Your task to perform on an android device: create a new album in the google photos Image 0: 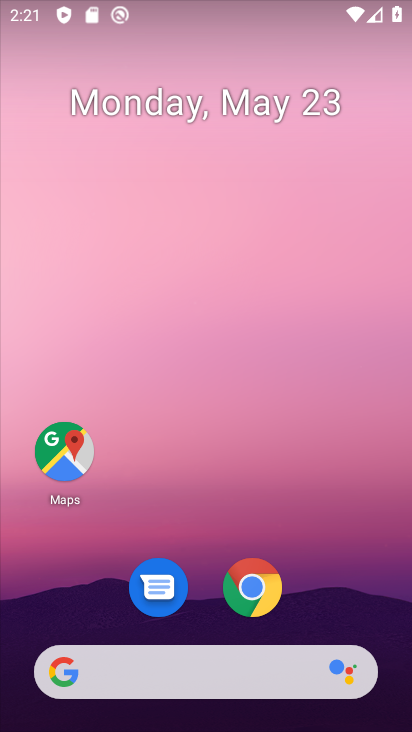
Step 0: drag from (193, 513) to (229, 287)
Your task to perform on an android device: create a new album in the google photos Image 1: 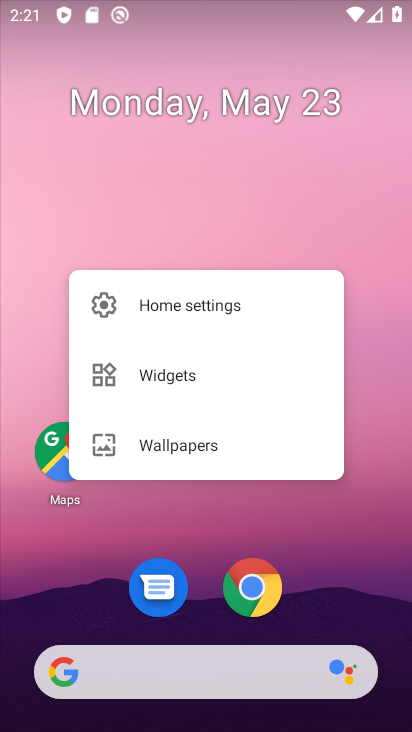
Step 1: drag from (206, 366) to (234, 209)
Your task to perform on an android device: create a new album in the google photos Image 2: 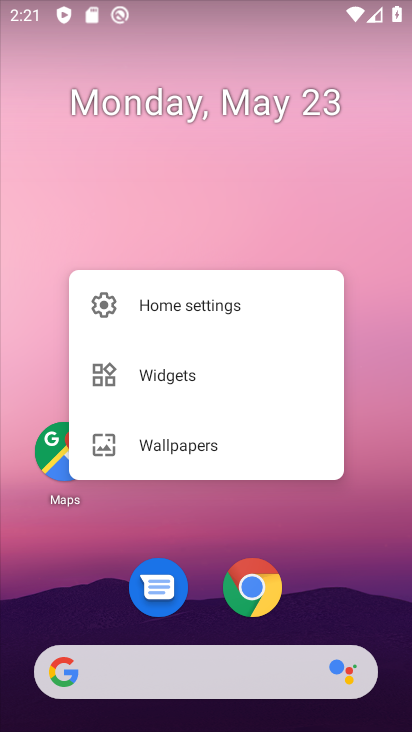
Step 2: click (214, 610)
Your task to perform on an android device: create a new album in the google photos Image 3: 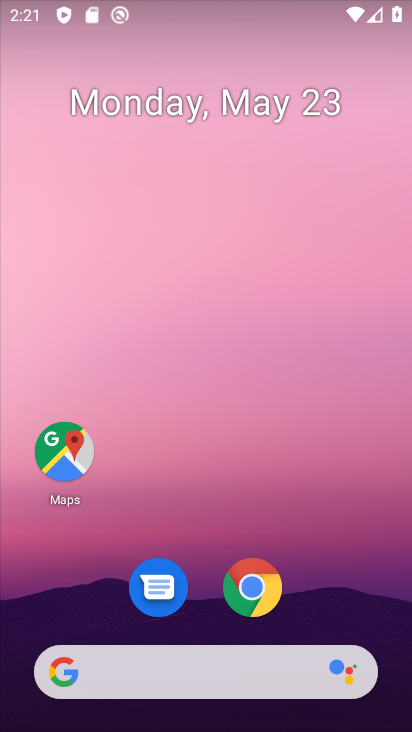
Step 3: drag from (187, 601) to (227, 145)
Your task to perform on an android device: create a new album in the google photos Image 4: 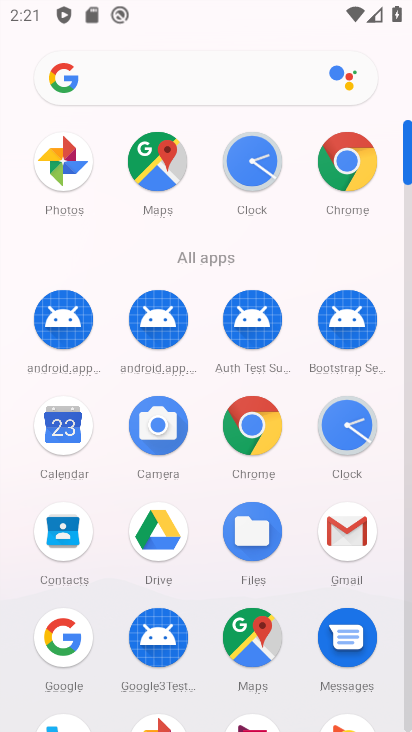
Step 4: drag from (119, 606) to (240, 131)
Your task to perform on an android device: create a new album in the google photos Image 5: 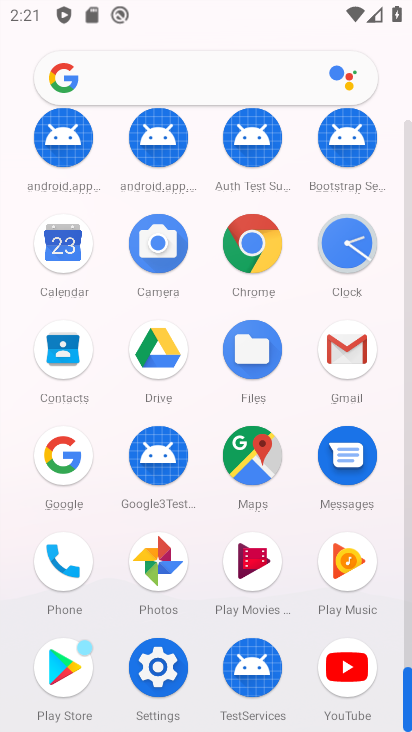
Step 5: click (155, 554)
Your task to perform on an android device: create a new album in the google photos Image 6: 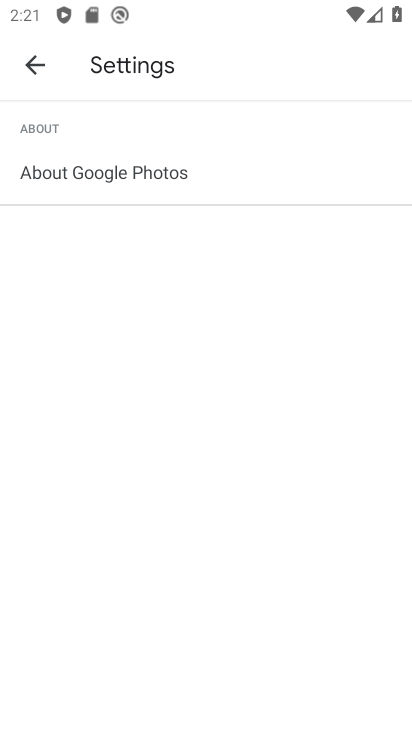
Step 6: click (95, 165)
Your task to perform on an android device: create a new album in the google photos Image 7: 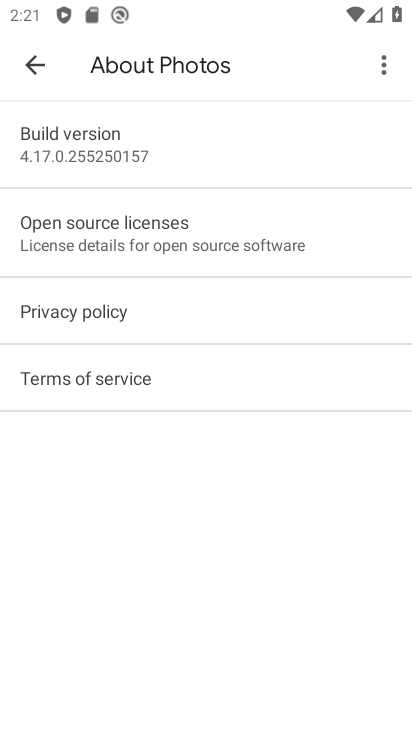
Step 7: click (26, 57)
Your task to perform on an android device: create a new album in the google photos Image 8: 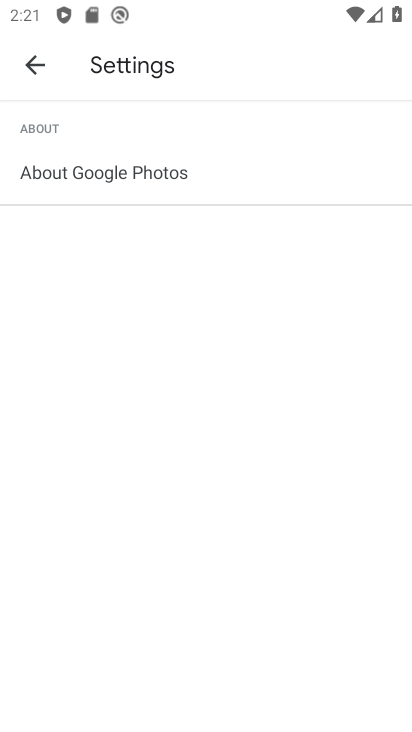
Step 8: click (26, 57)
Your task to perform on an android device: create a new album in the google photos Image 9: 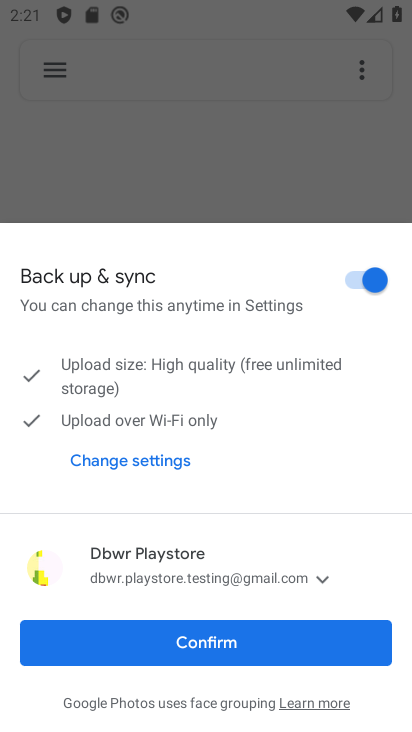
Step 9: click (153, 700)
Your task to perform on an android device: create a new album in the google photos Image 10: 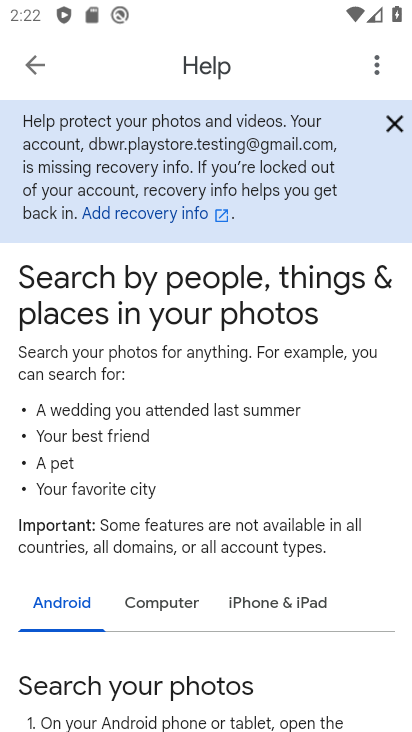
Step 10: click (35, 59)
Your task to perform on an android device: create a new album in the google photos Image 11: 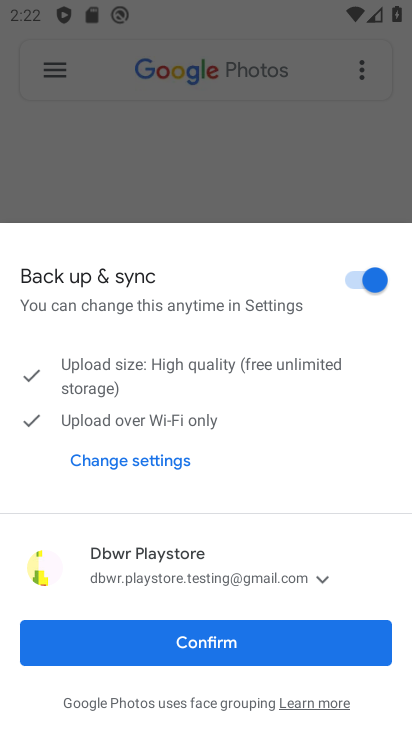
Step 11: click (149, 632)
Your task to perform on an android device: create a new album in the google photos Image 12: 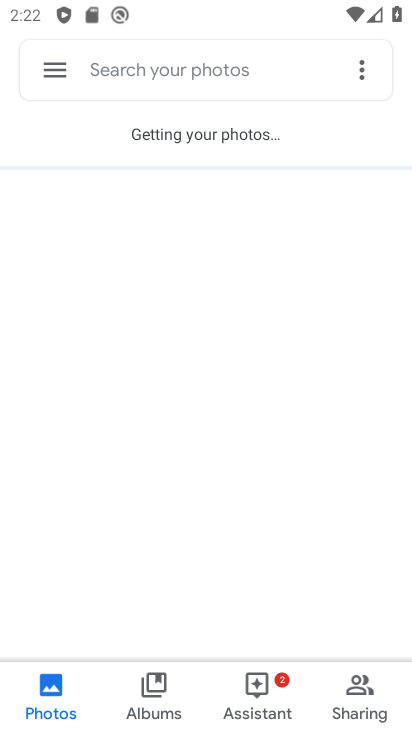
Step 12: click (159, 693)
Your task to perform on an android device: create a new album in the google photos Image 13: 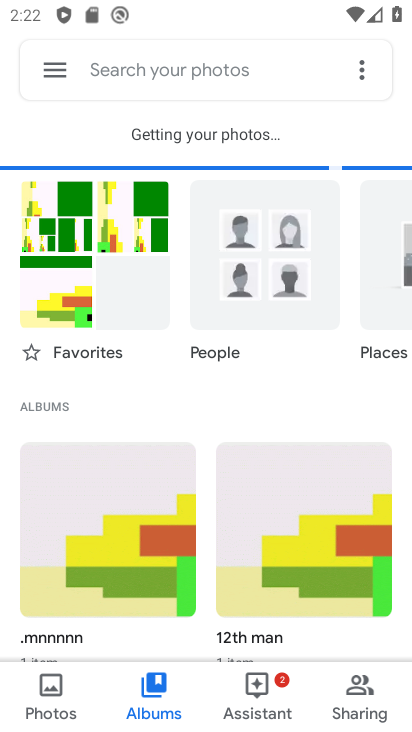
Step 13: drag from (172, 634) to (254, 206)
Your task to perform on an android device: create a new album in the google photos Image 14: 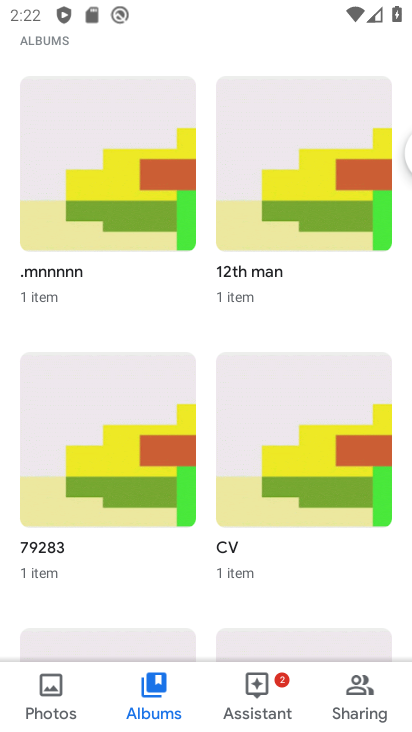
Step 14: drag from (142, 289) to (149, 659)
Your task to perform on an android device: create a new album in the google photos Image 15: 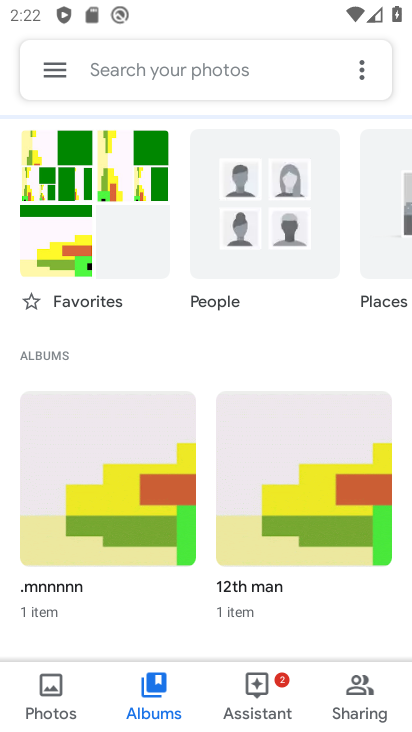
Step 15: click (358, 70)
Your task to perform on an android device: create a new album in the google photos Image 16: 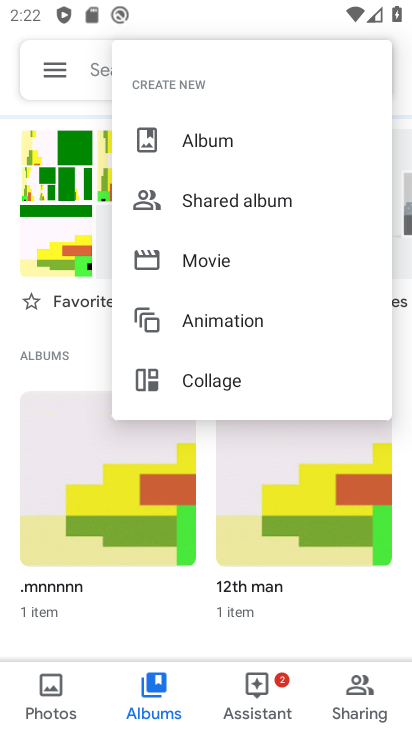
Step 16: click (195, 142)
Your task to perform on an android device: create a new album in the google photos Image 17: 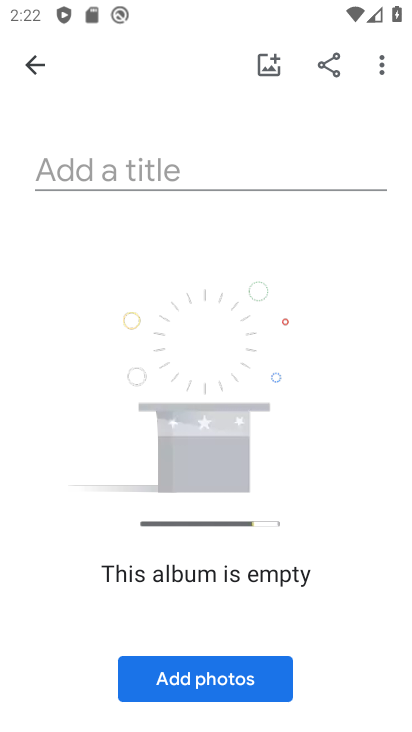
Step 17: click (206, 683)
Your task to perform on an android device: create a new album in the google photos Image 18: 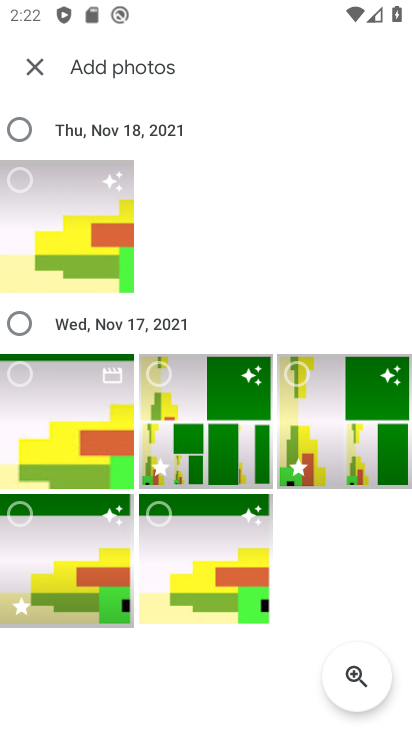
Step 18: click (23, 186)
Your task to perform on an android device: create a new album in the google photos Image 19: 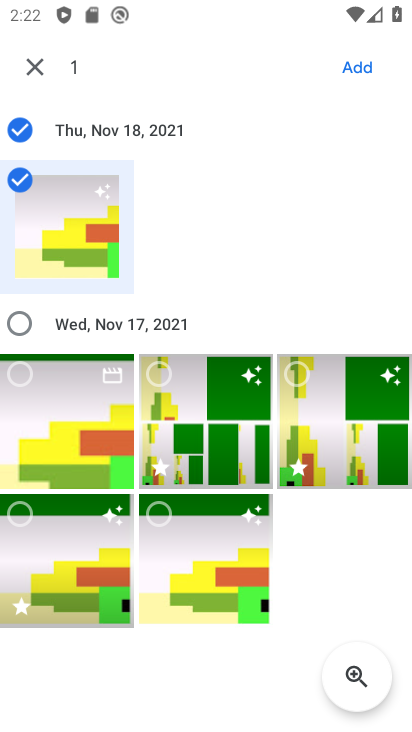
Step 19: click (21, 371)
Your task to perform on an android device: create a new album in the google photos Image 20: 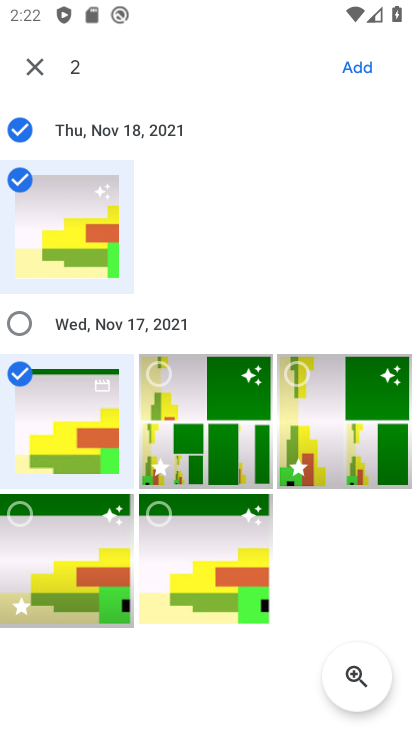
Step 20: click (368, 64)
Your task to perform on an android device: create a new album in the google photos Image 21: 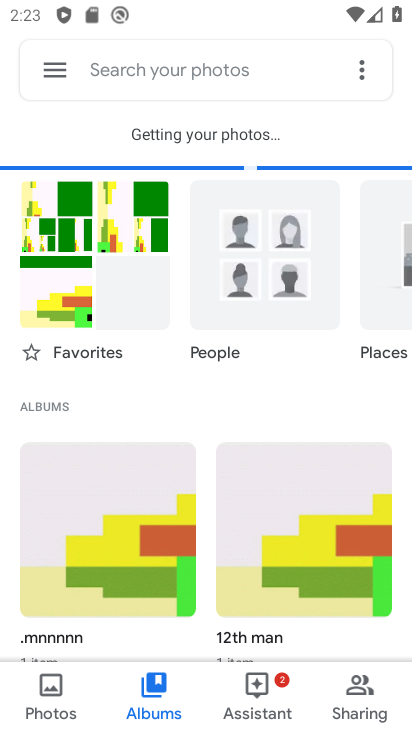
Step 21: click (361, 67)
Your task to perform on an android device: create a new album in the google photos Image 22: 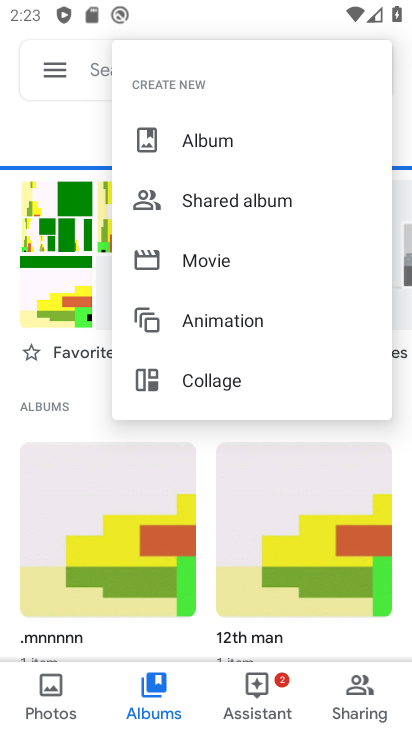
Step 22: click (176, 141)
Your task to perform on an android device: create a new album in the google photos Image 23: 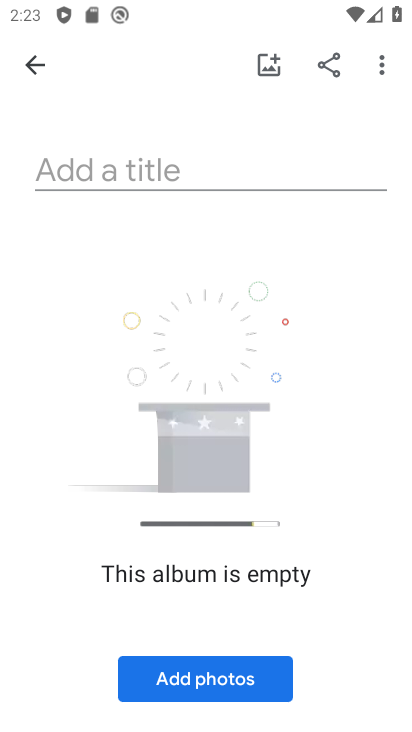
Step 23: click (126, 185)
Your task to perform on an android device: create a new album in the google photos Image 24: 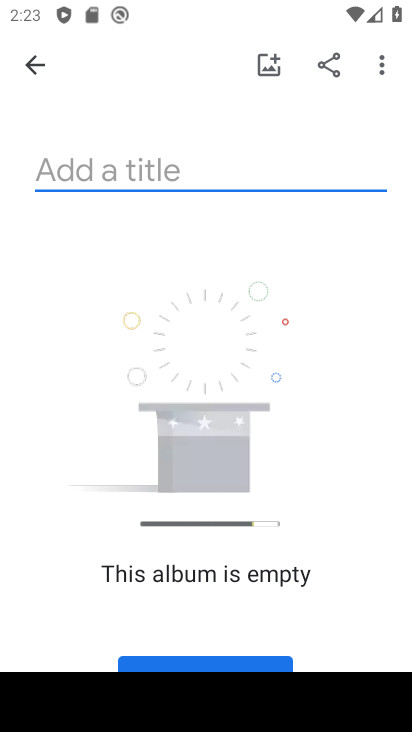
Step 24: type "hvjhbh"
Your task to perform on an android device: create a new album in the google photos Image 25: 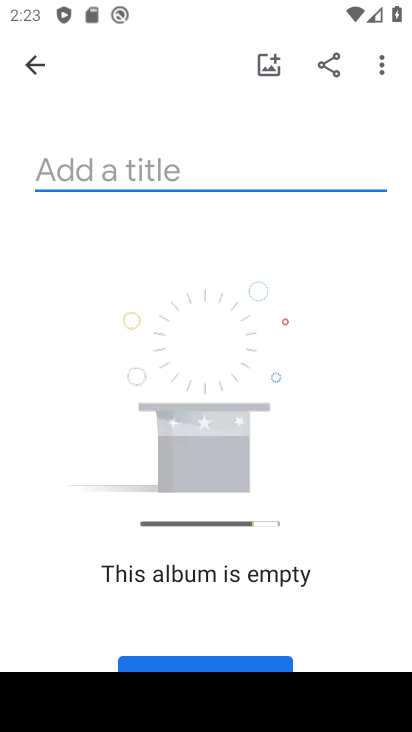
Step 25: click (209, 663)
Your task to perform on an android device: create a new album in the google photos Image 26: 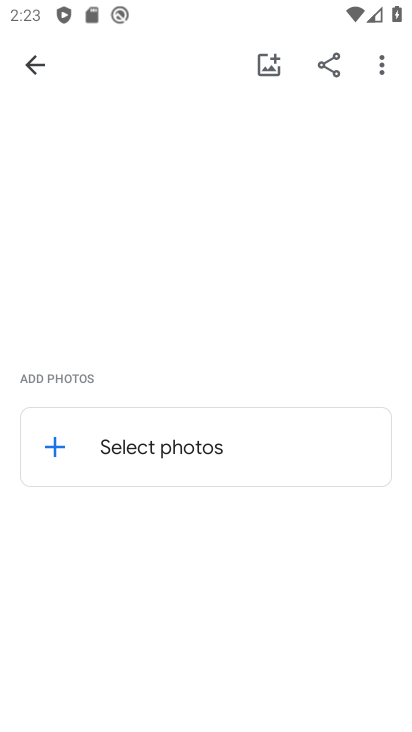
Step 26: task complete